Your task to perform on an android device: set the stopwatch Image 0: 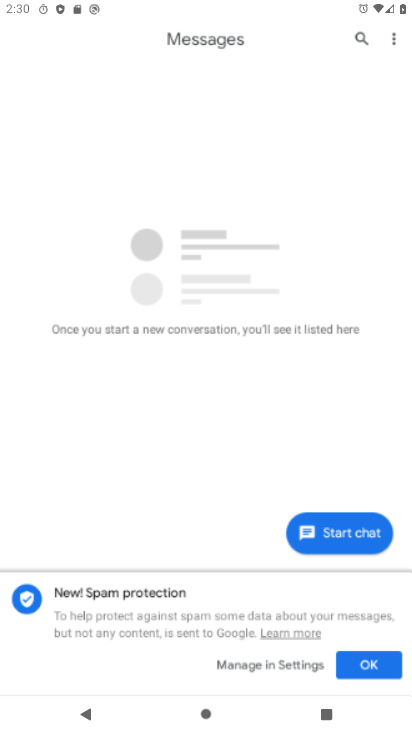
Step 0: drag from (197, 673) to (195, 191)
Your task to perform on an android device: set the stopwatch Image 1: 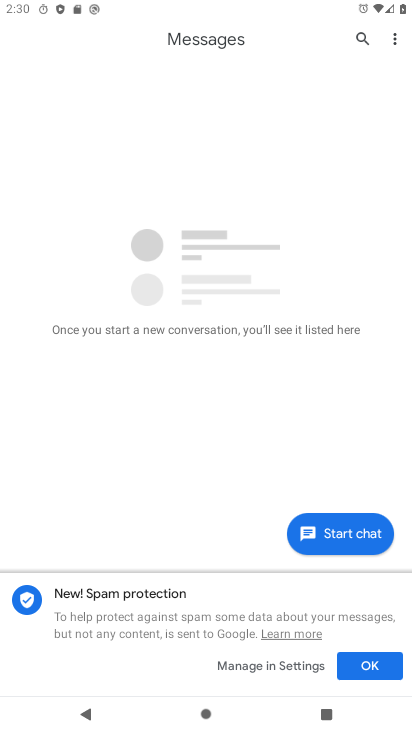
Step 1: press home button
Your task to perform on an android device: set the stopwatch Image 2: 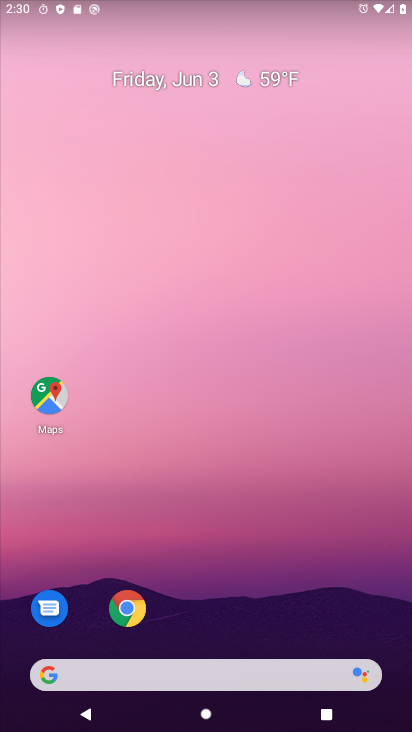
Step 2: drag from (201, 669) to (176, 181)
Your task to perform on an android device: set the stopwatch Image 3: 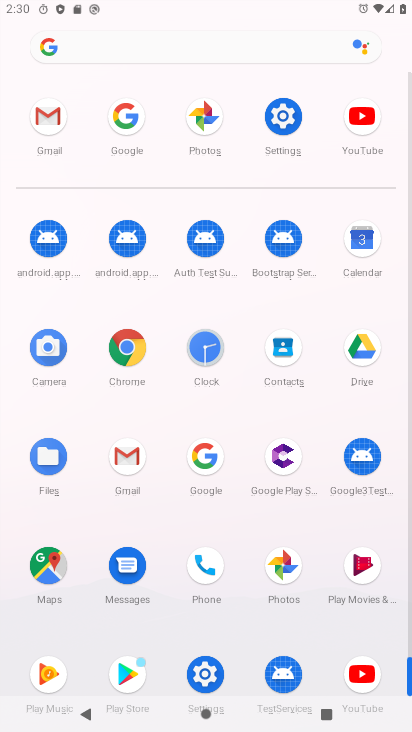
Step 3: click (197, 361)
Your task to perform on an android device: set the stopwatch Image 4: 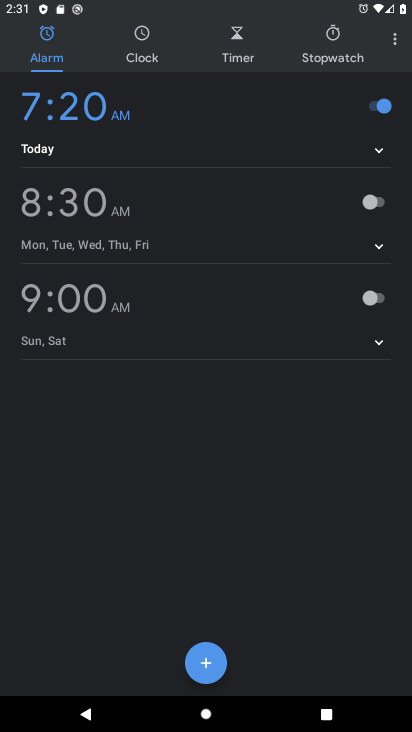
Step 4: click (319, 56)
Your task to perform on an android device: set the stopwatch Image 5: 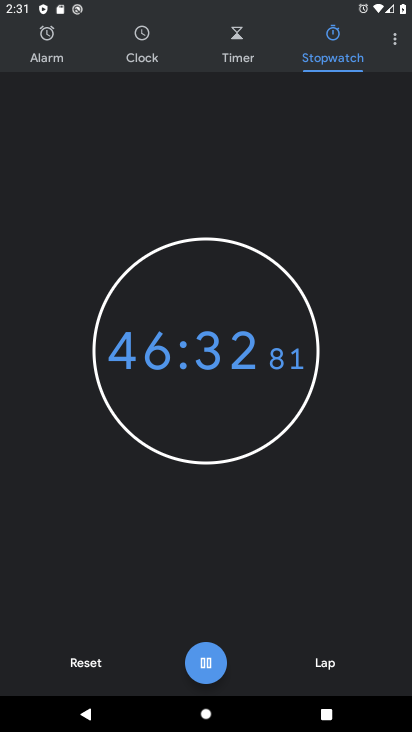
Step 5: task complete